Your task to perform on an android device: open app "Gmail" (install if not already installed) Image 0: 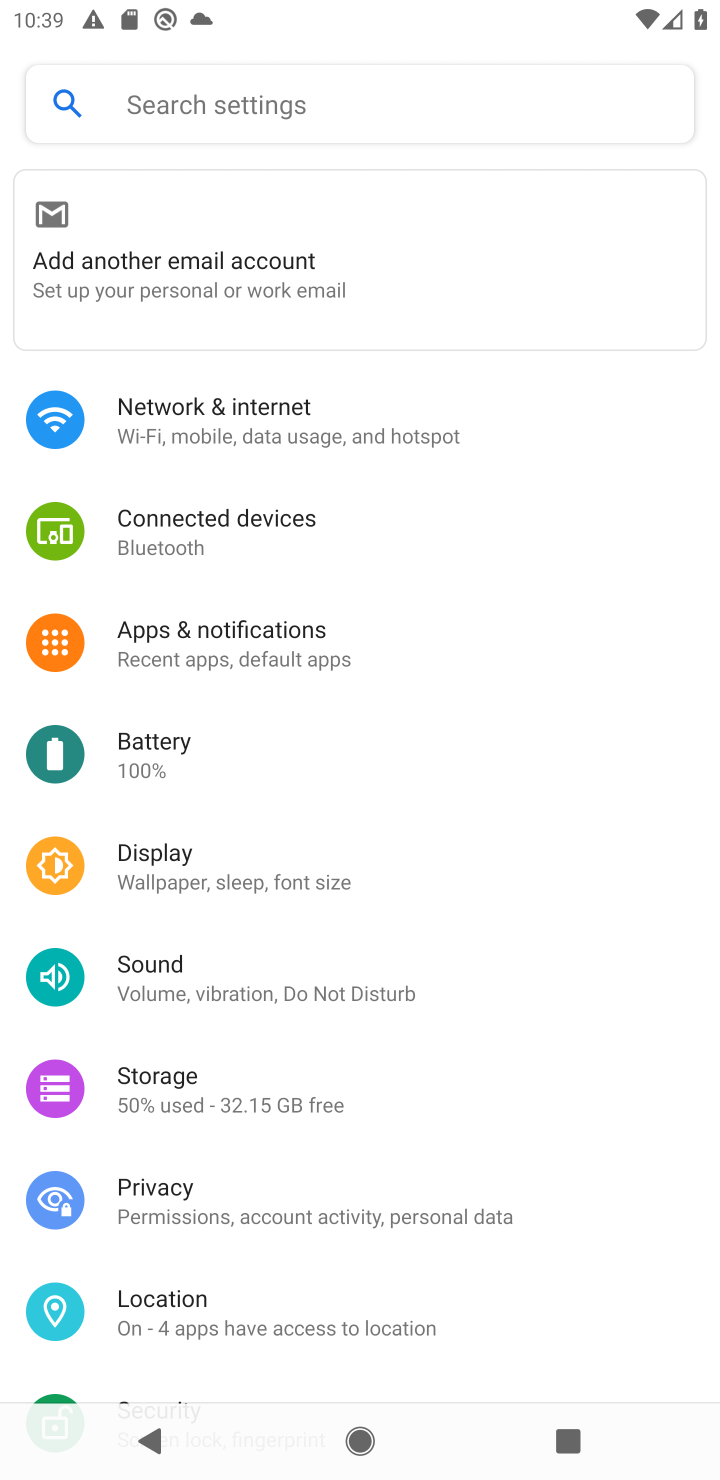
Step 0: press home button
Your task to perform on an android device: open app "Gmail" (install if not already installed) Image 1: 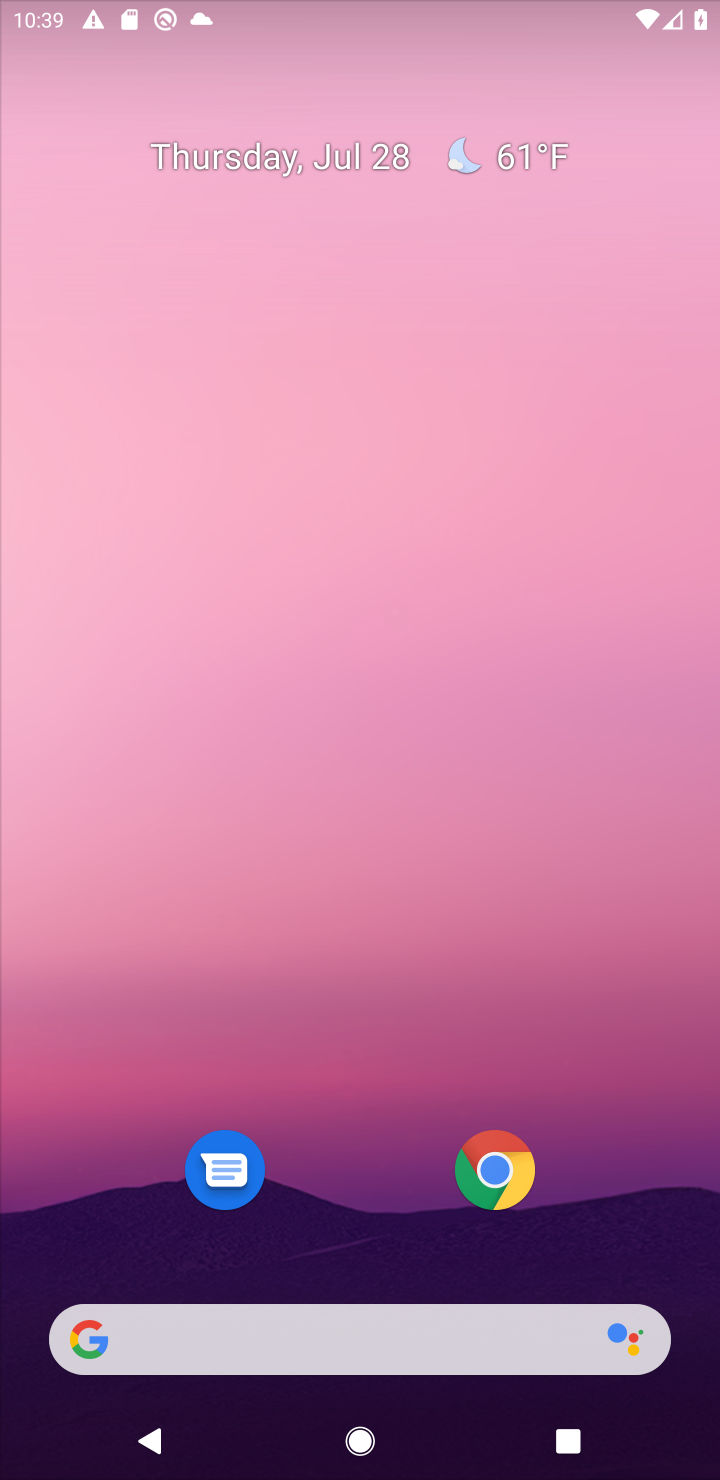
Step 1: drag from (375, 1016) to (594, 30)
Your task to perform on an android device: open app "Gmail" (install if not already installed) Image 2: 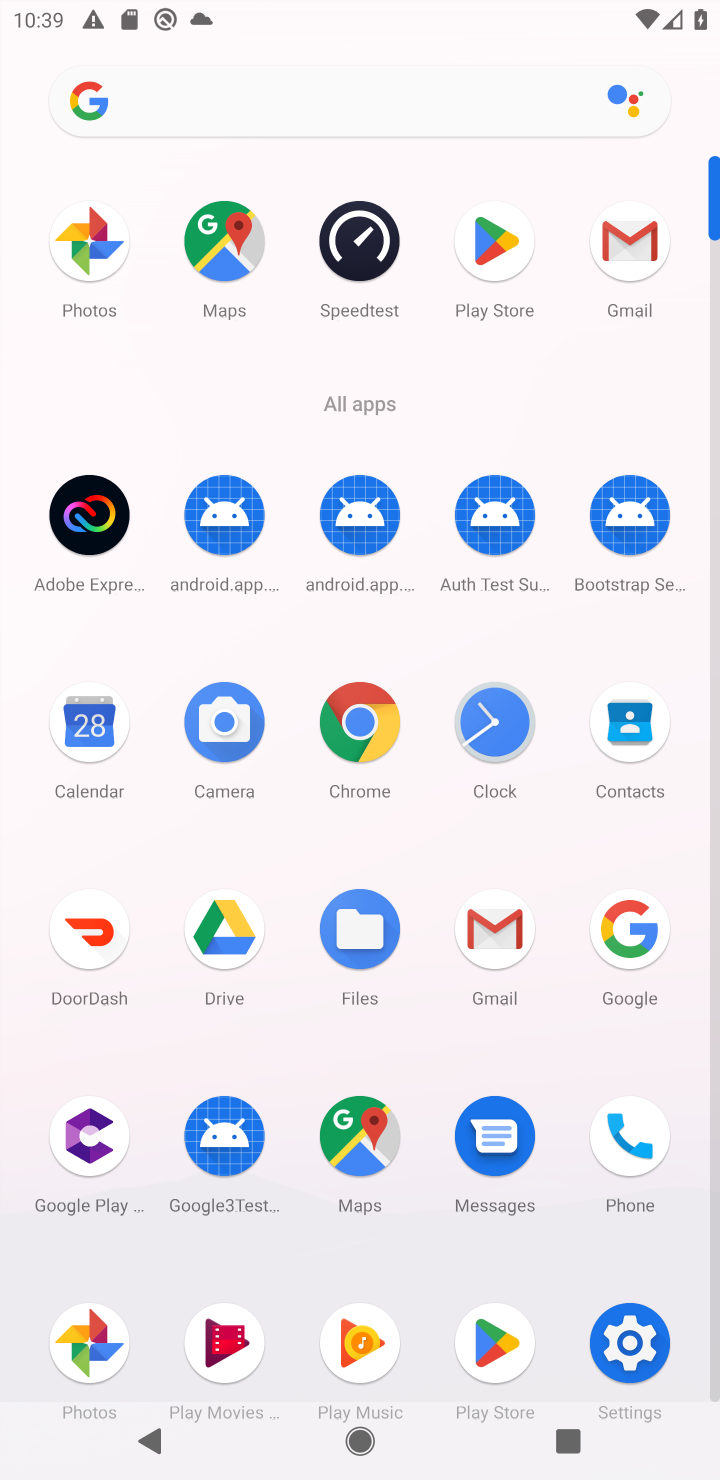
Step 2: click (487, 961)
Your task to perform on an android device: open app "Gmail" (install if not already installed) Image 3: 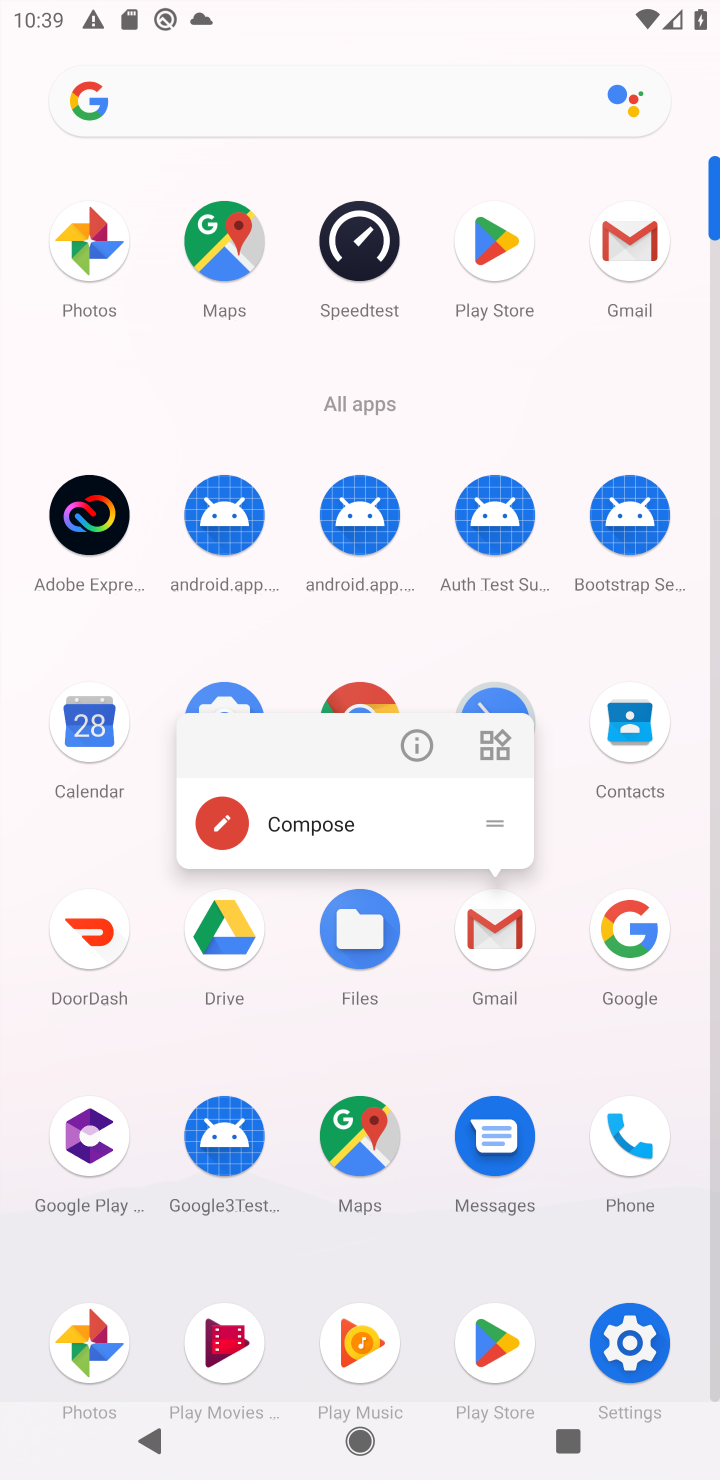
Step 3: click (491, 967)
Your task to perform on an android device: open app "Gmail" (install if not already installed) Image 4: 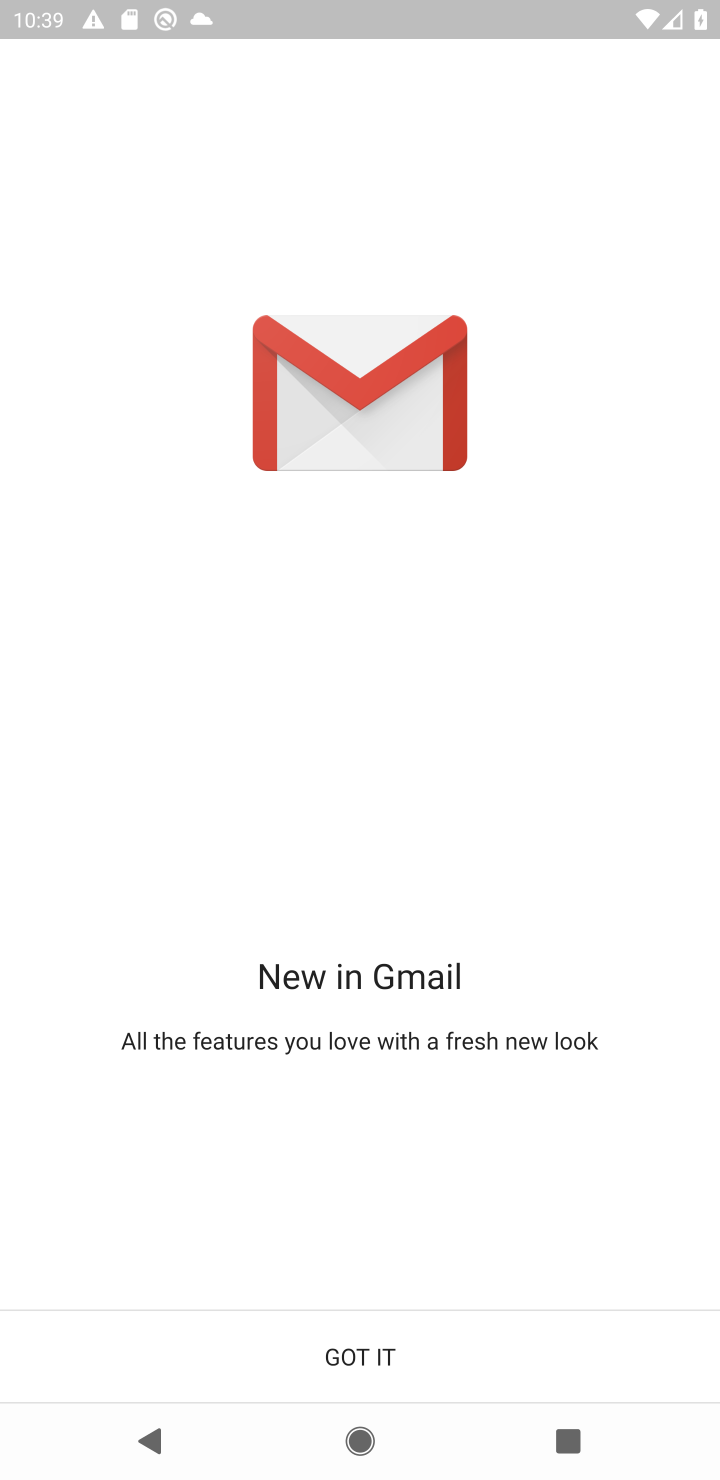
Step 4: click (388, 1363)
Your task to perform on an android device: open app "Gmail" (install if not already installed) Image 5: 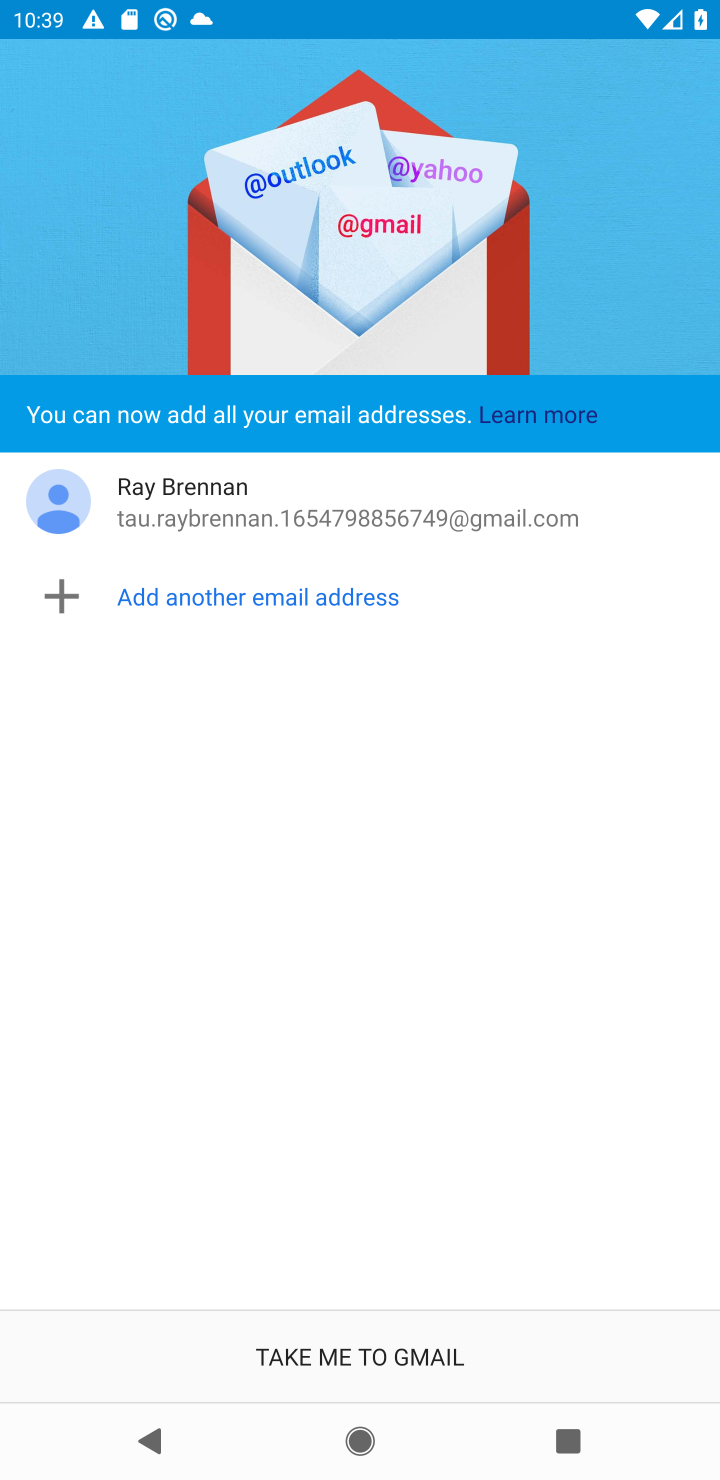
Step 5: click (386, 1357)
Your task to perform on an android device: open app "Gmail" (install if not already installed) Image 6: 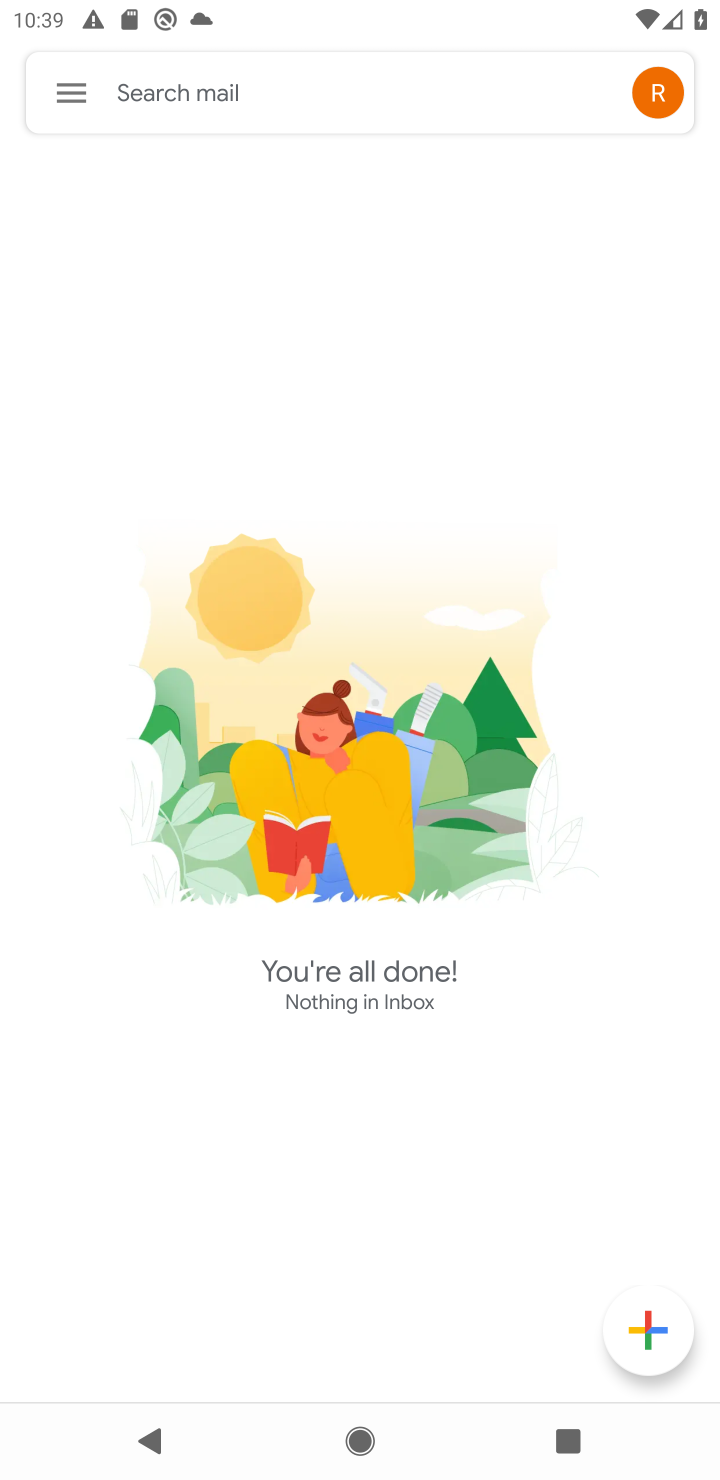
Step 6: task complete